Your task to perform on an android device: Search for runner rugs on Crate & Barrel Image 0: 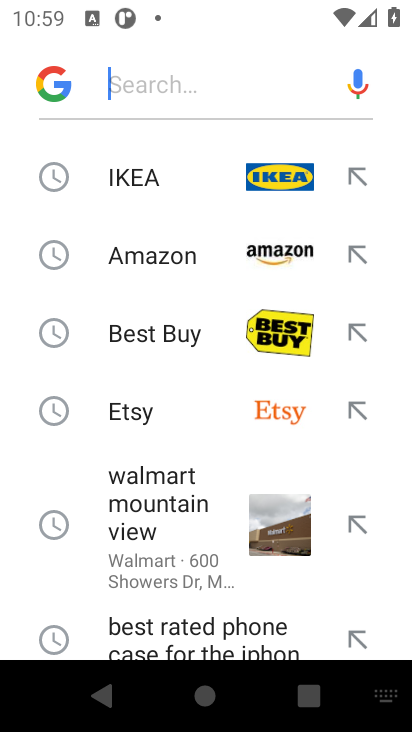
Step 0: type "Crate & Barrel"
Your task to perform on an android device: Search for runner rugs on Crate & Barrel Image 1: 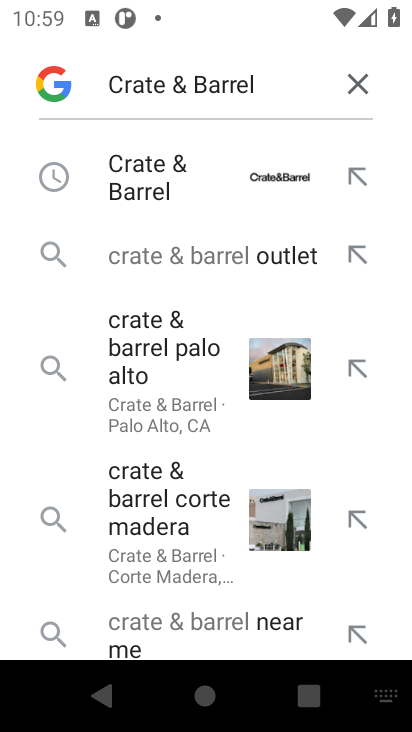
Step 1: click (278, 162)
Your task to perform on an android device: Search for runner rugs on Crate & Barrel Image 2: 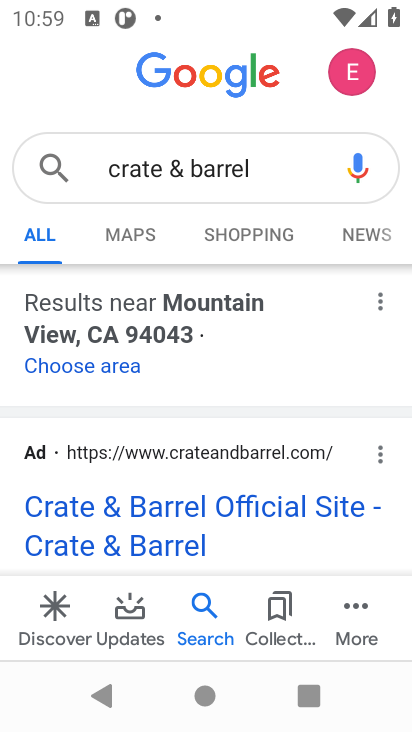
Step 2: click (176, 509)
Your task to perform on an android device: Search for runner rugs on Crate & Barrel Image 3: 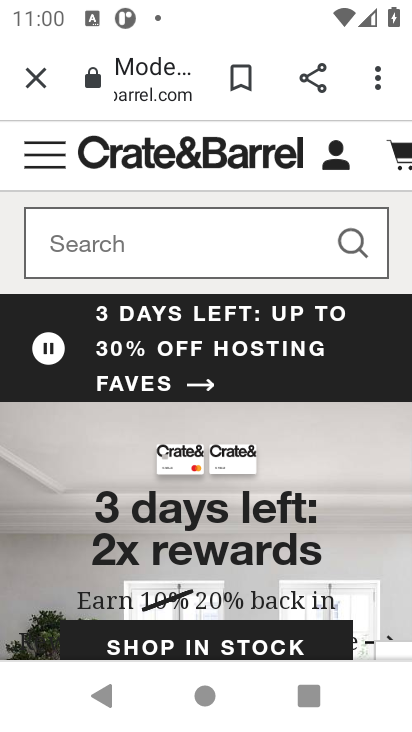
Step 3: click (266, 252)
Your task to perform on an android device: Search for runner rugs on Crate & Barrel Image 4: 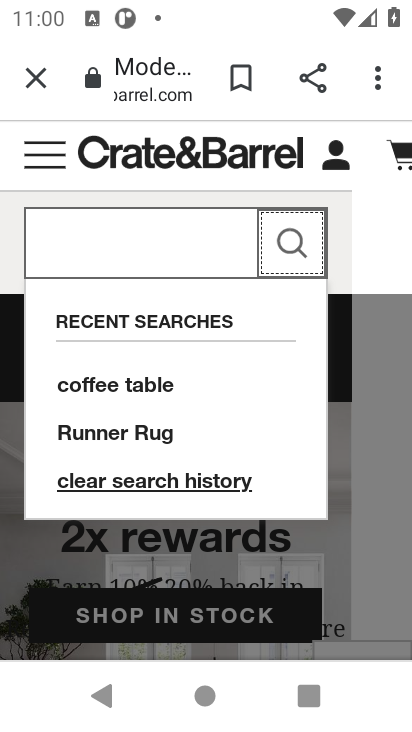
Step 4: click (189, 248)
Your task to perform on an android device: Search for runner rugs on Crate & Barrel Image 5: 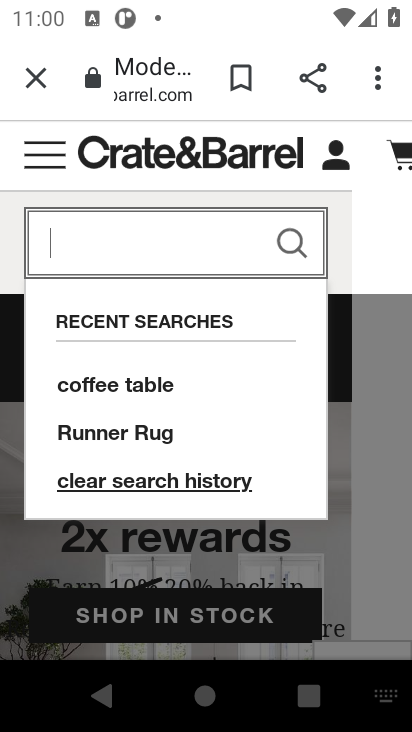
Step 5: type " runner rugs "
Your task to perform on an android device: Search for runner rugs on Crate & Barrel Image 6: 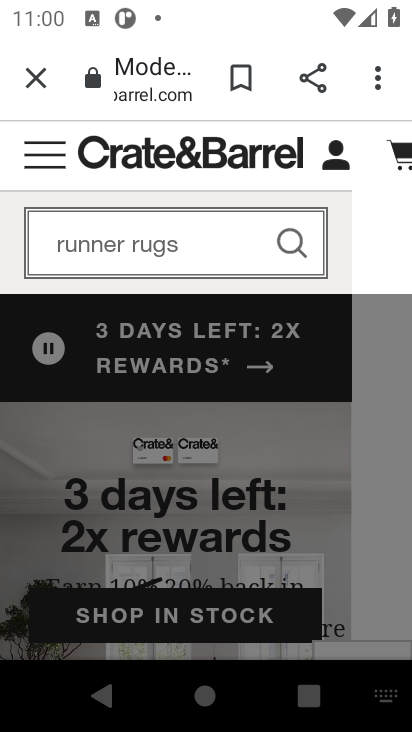
Step 6: click (288, 229)
Your task to perform on an android device: Search for runner rugs on Crate & Barrel Image 7: 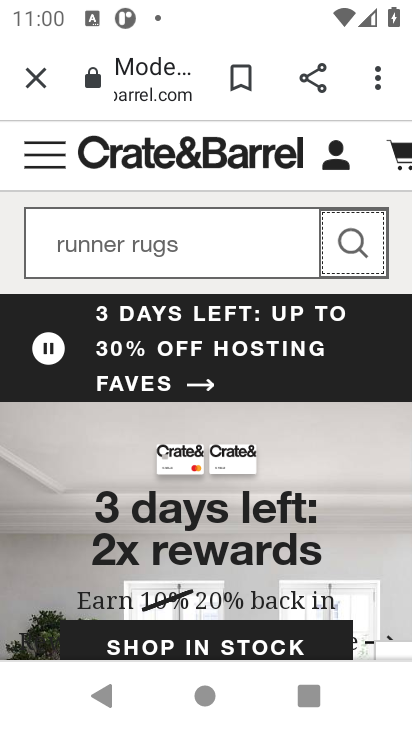
Step 7: click (357, 233)
Your task to perform on an android device: Search for runner rugs on Crate & Barrel Image 8: 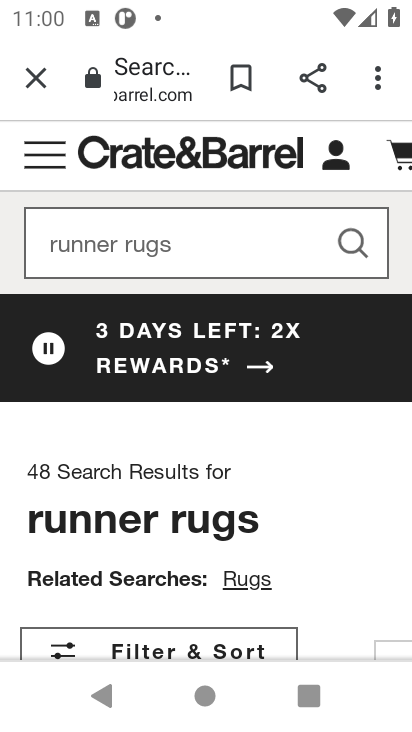
Step 8: task complete